Your task to perform on an android device: Toggle the flashlight Image 0: 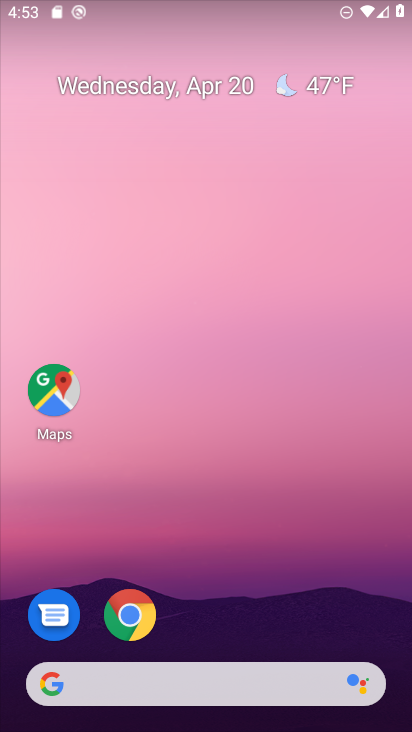
Step 0: drag from (282, 611) to (261, 105)
Your task to perform on an android device: Toggle the flashlight Image 1: 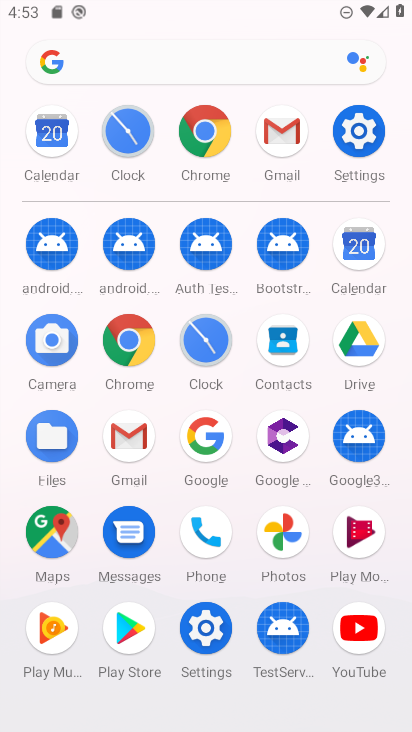
Step 1: click (363, 134)
Your task to perform on an android device: Toggle the flashlight Image 2: 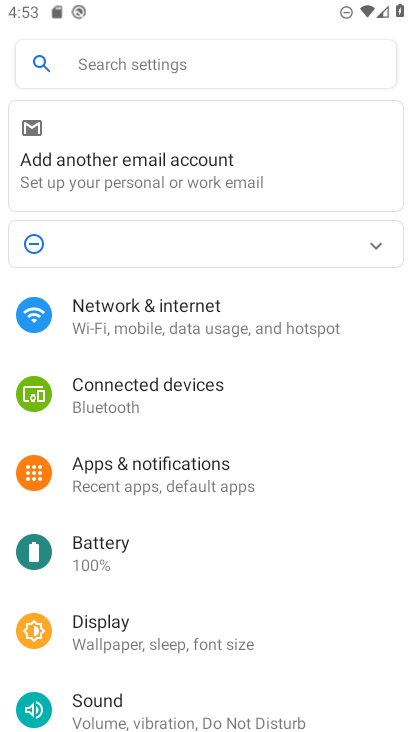
Step 2: drag from (336, 614) to (322, 182)
Your task to perform on an android device: Toggle the flashlight Image 3: 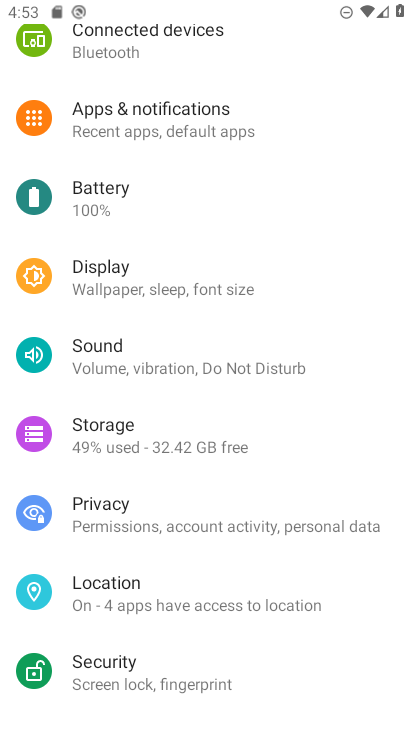
Step 3: drag from (320, 602) to (300, 218)
Your task to perform on an android device: Toggle the flashlight Image 4: 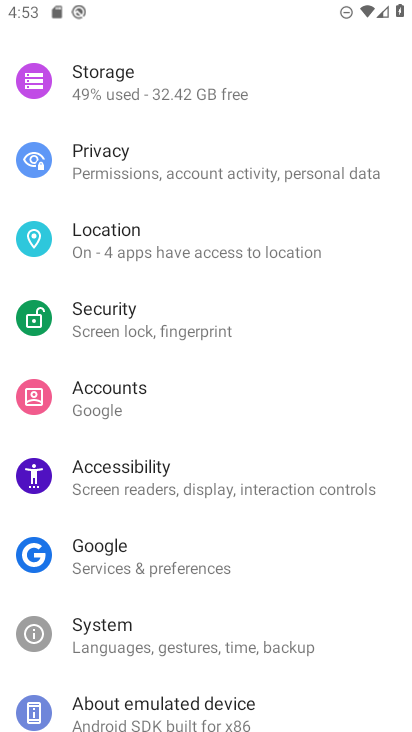
Step 4: drag from (346, 603) to (327, 175)
Your task to perform on an android device: Toggle the flashlight Image 5: 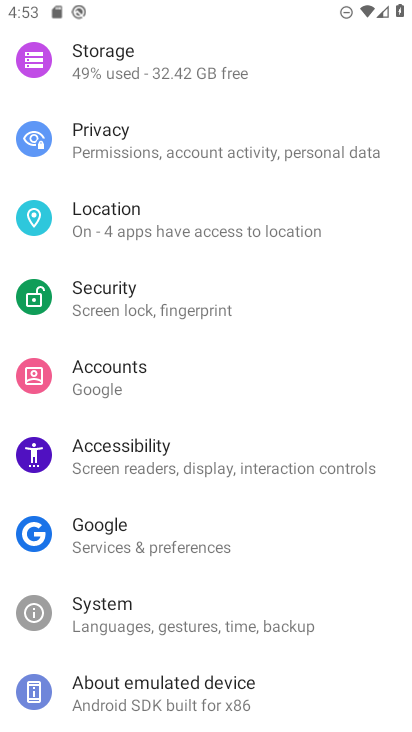
Step 5: click (216, 626)
Your task to perform on an android device: Toggle the flashlight Image 6: 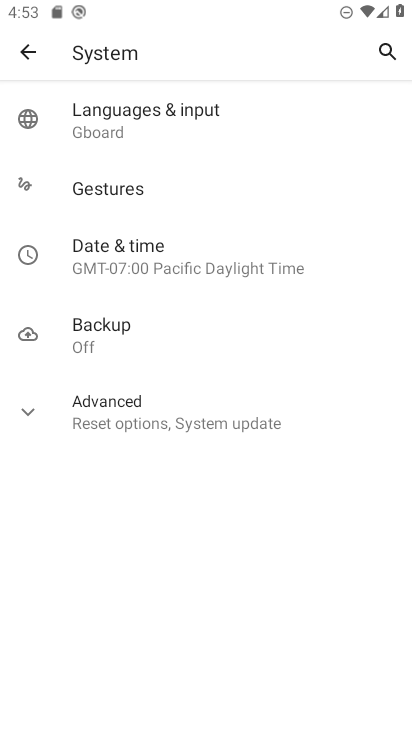
Step 6: click (164, 184)
Your task to perform on an android device: Toggle the flashlight Image 7: 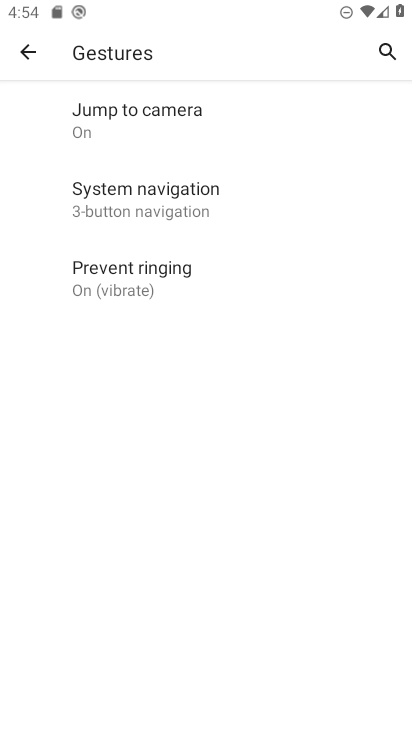
Step 7: task complete